Your task to perform on an android device: toggle priority inbox in the gmail app Image 0: 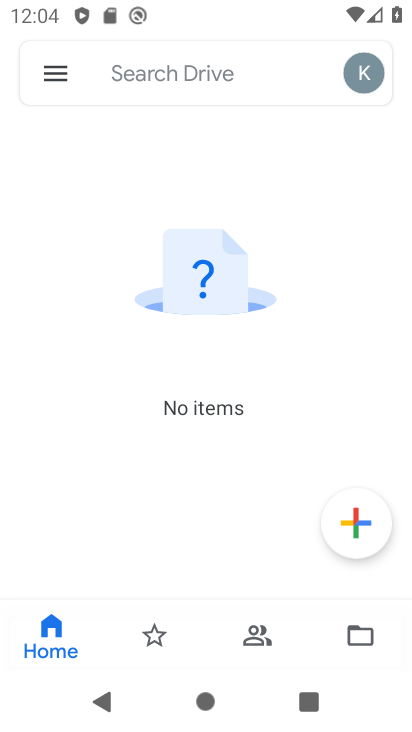
Step 0: press home button
Your task to perform on an android device: toggle priority inbox in the gmail app Image 1: 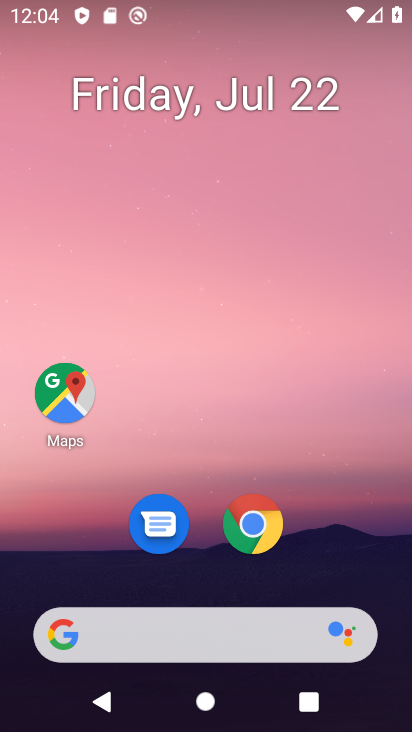
Step 1: drag from (221, 621) to (317, 84)
Your task to perform on an android device: toggle priority inbox in the gmail app Image 2: 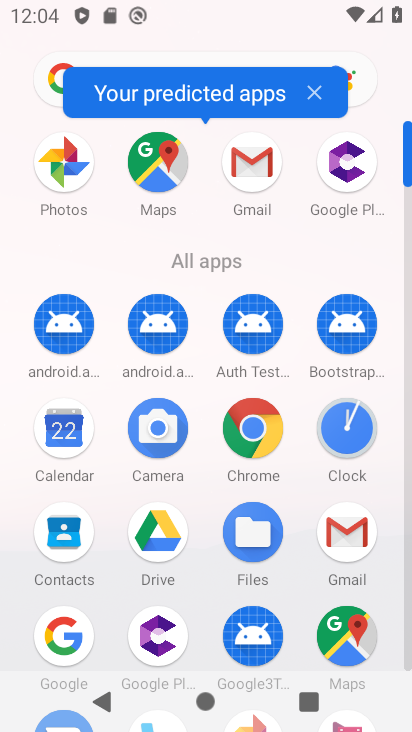
Step 2: click (257, 169)
Your task to perform on an android device: toggle priority inbox in the gmail app Image 3: 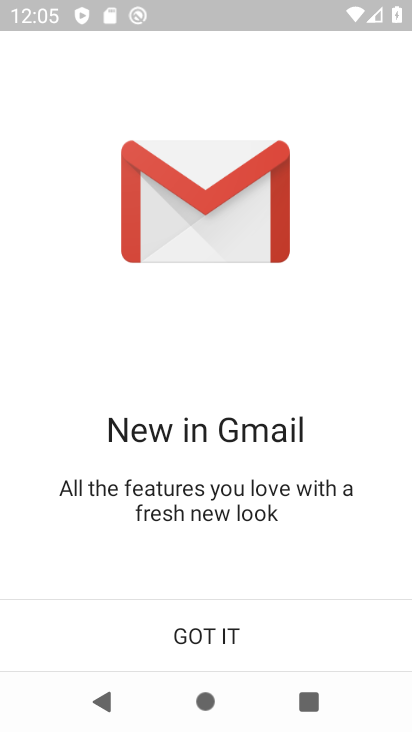
Step 3: click (204, 646)
Your task to perform on an android device: toggle priority inbox in the gmail app Image 4: 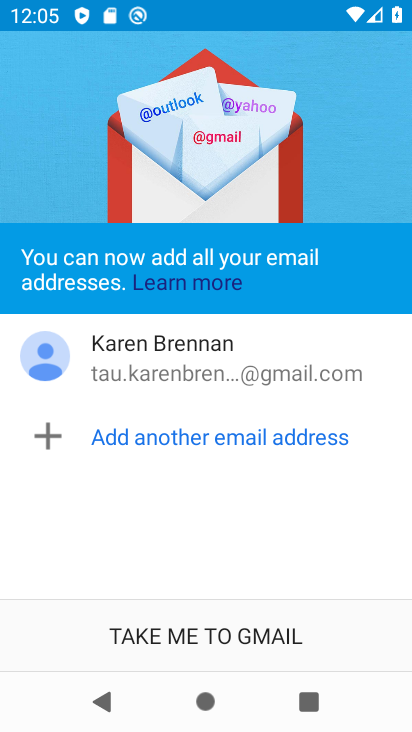
Step 4: click (209, 641)
Your task to perform on an android device: toggle priority inbox in the gmail app Image 5: 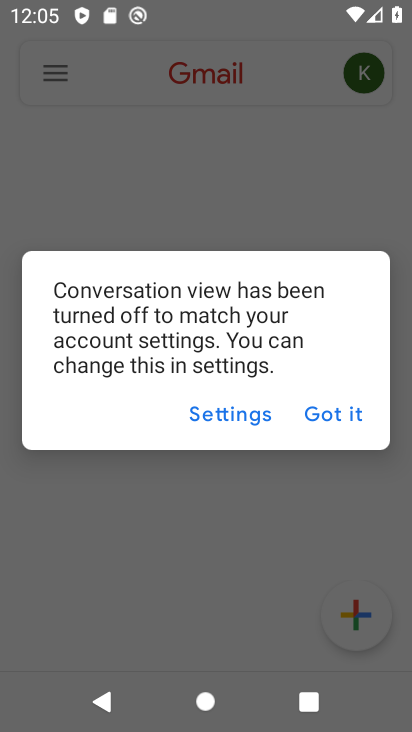
Step 5: click (329, 410)
Your task to perform on an android device: toggle priority inbox in the gmail app Image 6: 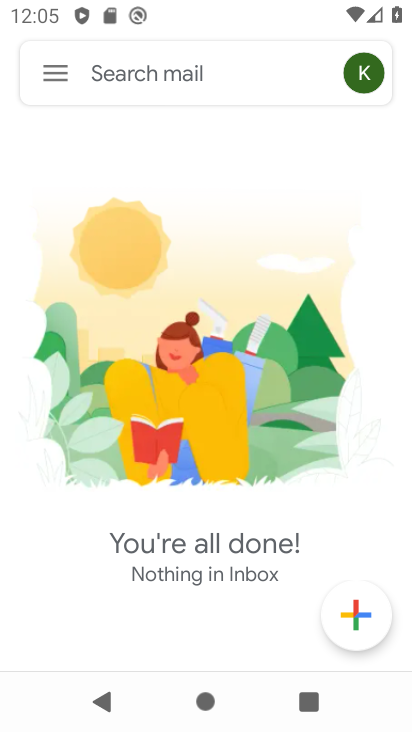
Step 6: click (57, 73)
Your task to perform on an android device: toggle priority inbox in the gmail app Image 7: 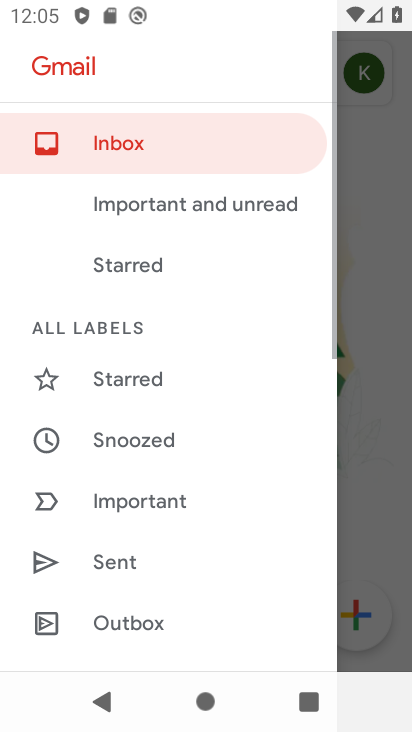
Step 7: drag from (185, 615) to (274, 100)
Your task to perform on an android device: toggle priority inbox in the gmail app Image 8: 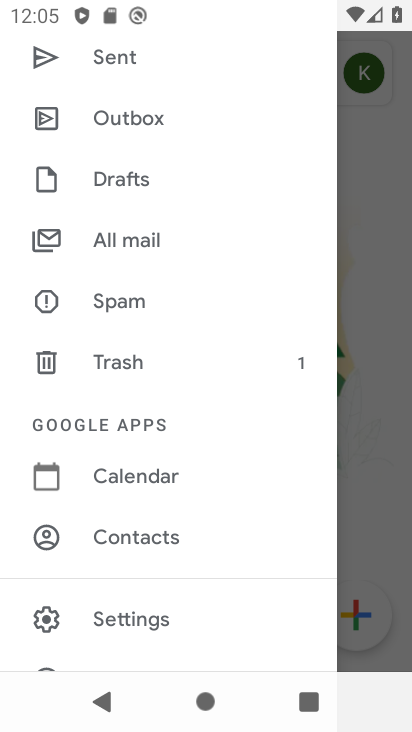
Step 8: click (161, 615)
Your task to perform on an android device: toggle priority inbox in the gmail app Image 9: 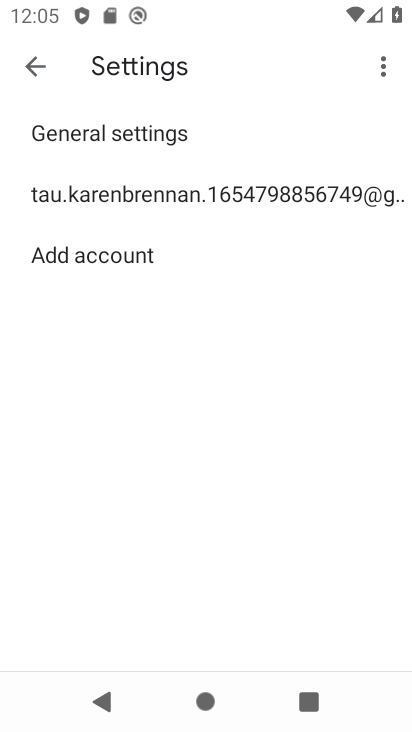
Step 9: click (239, 195)
Your task to perform on an android device: toggle priority inbox in the gmail app Image 10: 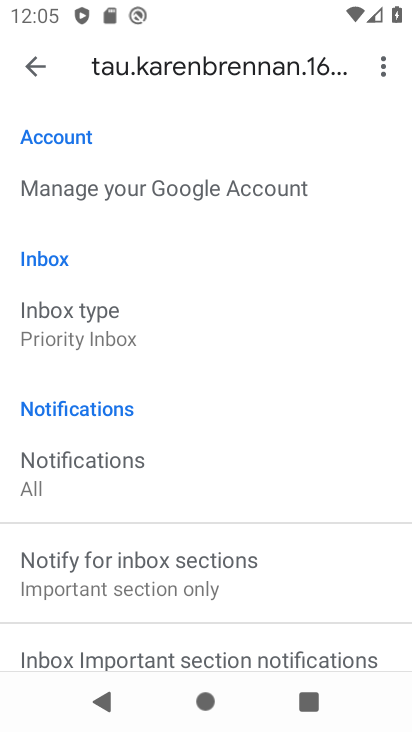
Step 10: click (116, 321)
Your task to perform on an android device: toggle priority inbox in the gmail app Image 11: 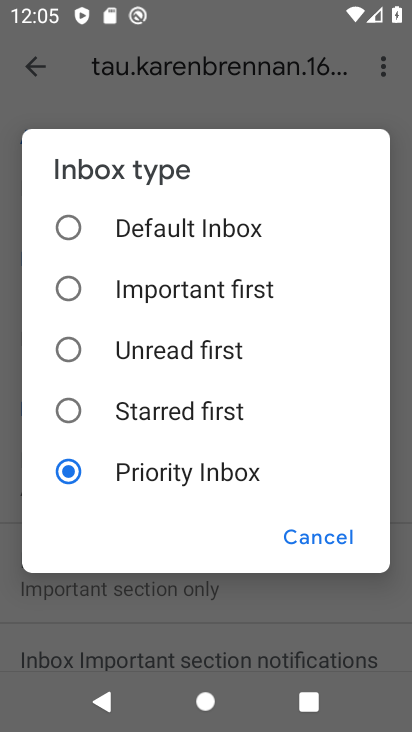
Step 11: click (69, 220)
Your task to perform on an android device: toggle priority inbox in the gmail app Image 12: 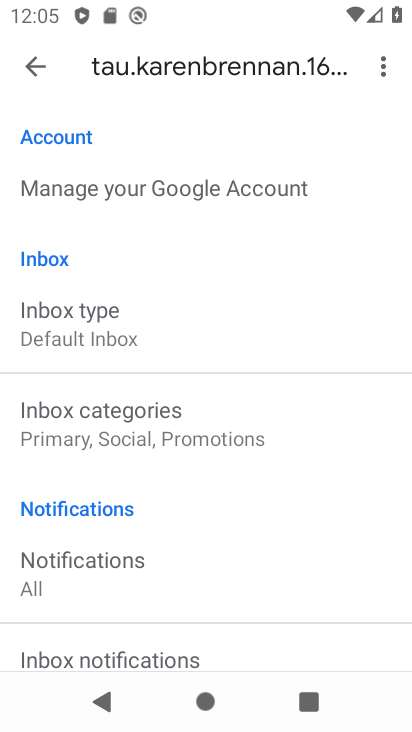
Step 12: task complete